Your task to perform on an android device: Show the shopping cart on newegg. Add duracell triple a to the cart on newegg Image 0: 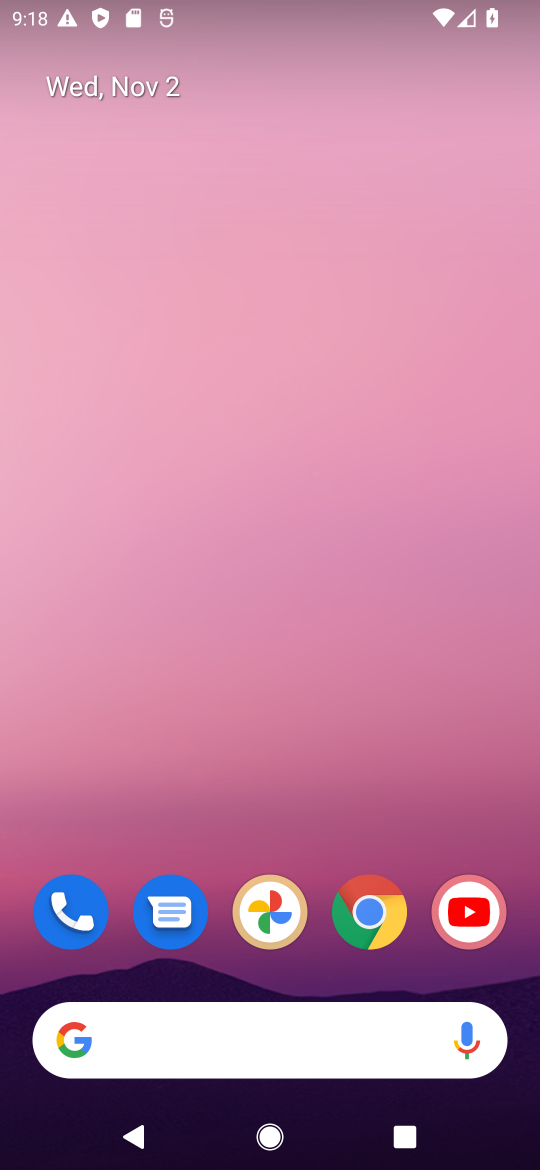
Step 0: drag from (354, 1104) to (356, 78)
Your task to perform on an android device: Show the shopping cart on newegg. Add duracell triple a to the cart on newegg Image 1: 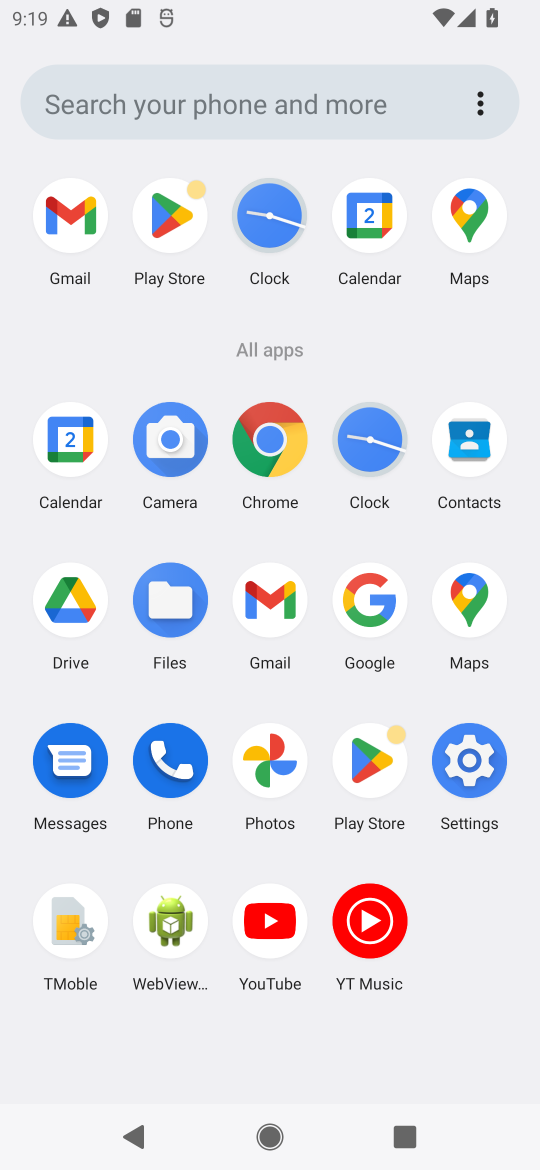
Step 1: click (263, 442)
Your task to perform on an android device: Show the shopping cart on newegg. Add duracell triple a to the cart on newegg Image 2: 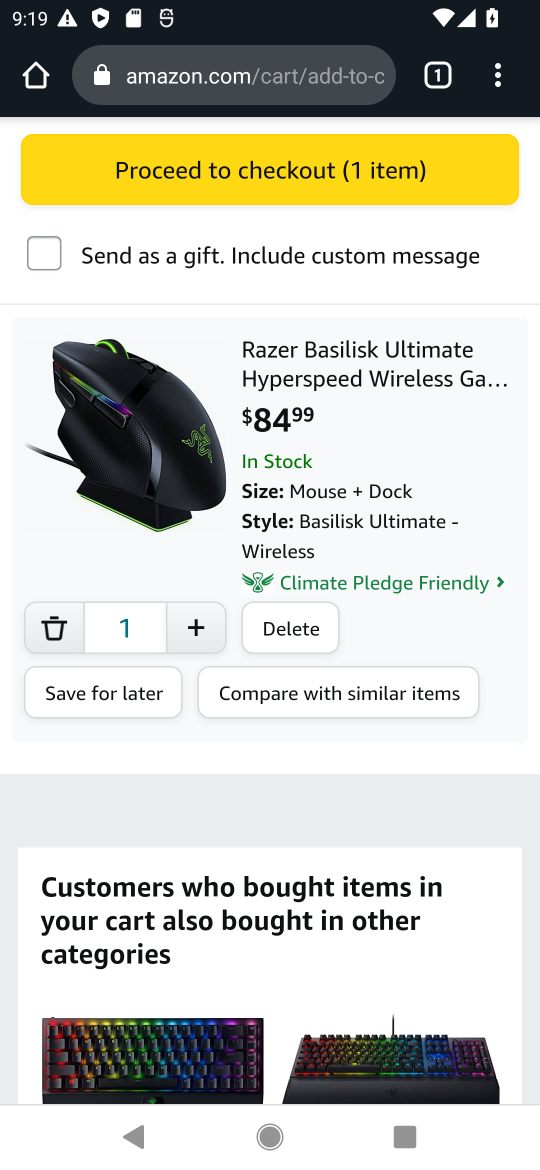
Step 2: task complete